Your task to perform on an android device: change notification settings in the gmail app Image 0: 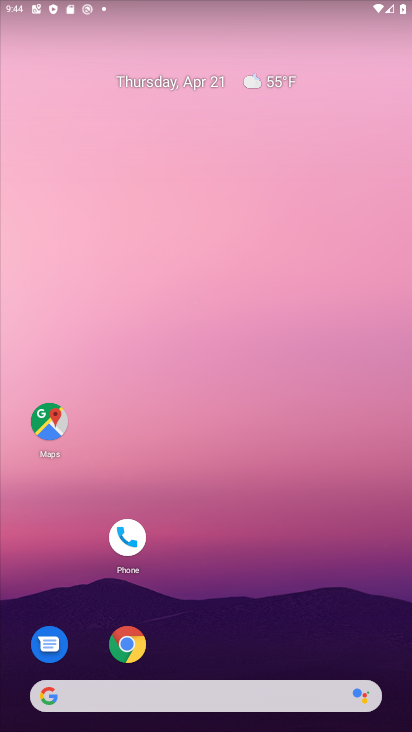
Step 0: drag from (205, 599) to (281, 163)
Your task to perform on an android device: change notification settings in the gmail app Image 1: 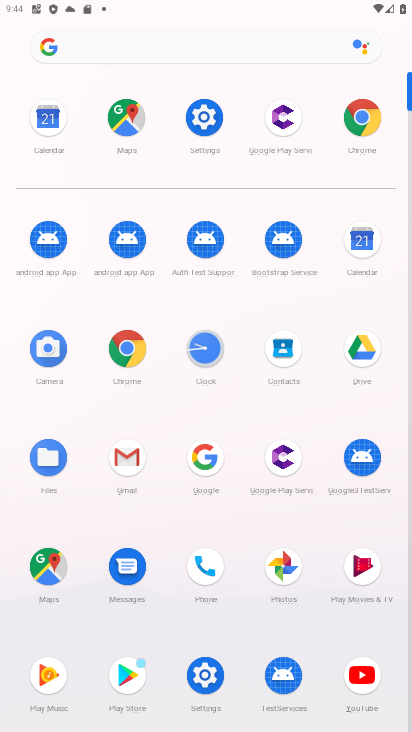
Step 1: click (130, 454)
Your task to perform on an android device: change notification settings in the gmail app Image 2: 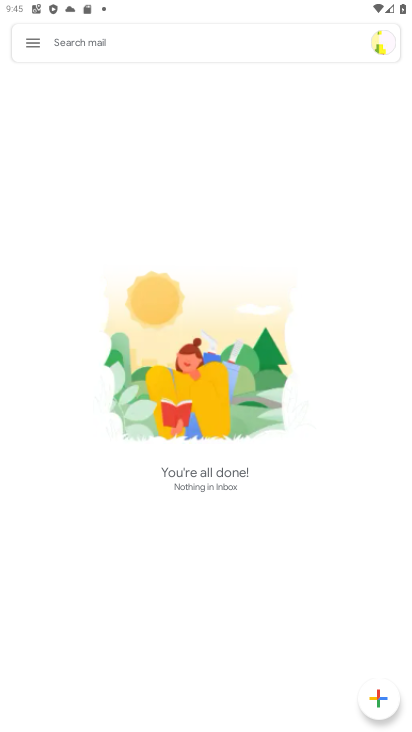
Step 2: click (33, 39)
Your task to perform on an android device: change notification settings in the gmail app Image 3: 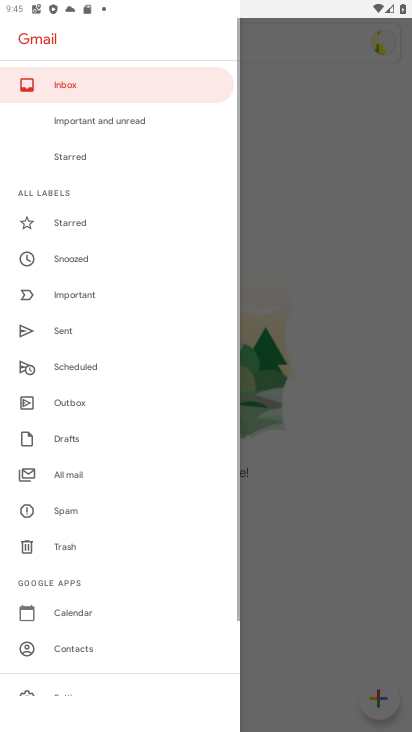
Step 3: drag from (114, 629) to (217, 188)
Your task to perform on an android device: change notification settings in the gmail app Image 4: 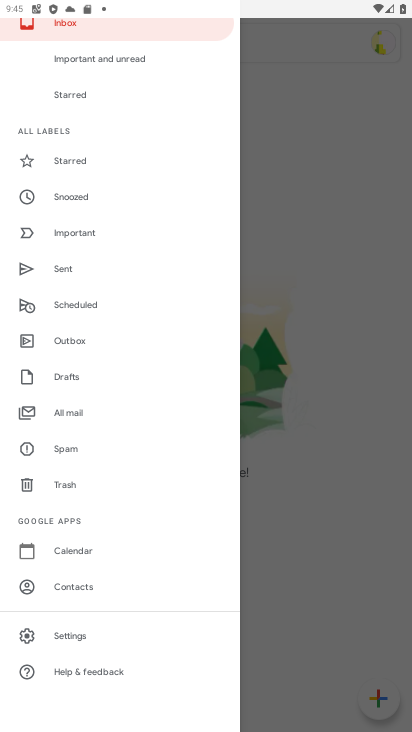
Step 4: click (53, 637)
Your task to perform on an android device: change notification settings in the gmail app Image 5: 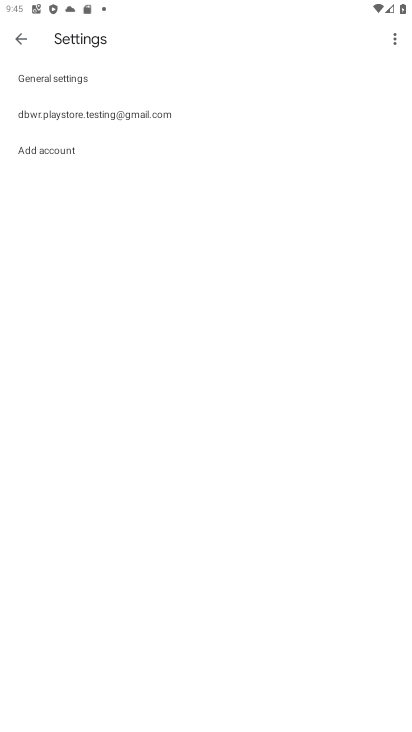
Step 5: click (121, 105)
Your task to perform on an android device: change notification settings in the gmail app Image 6: 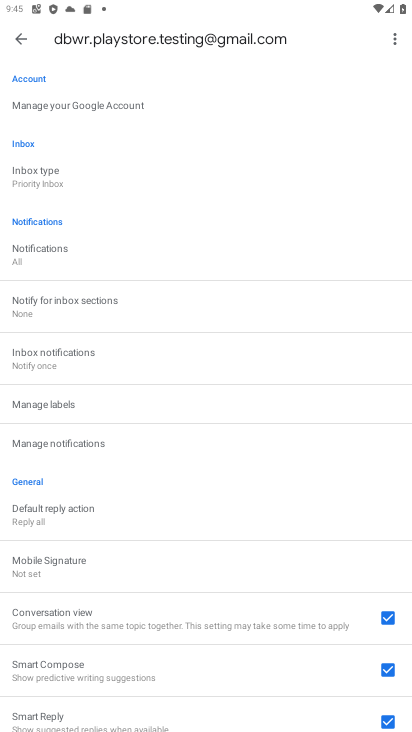
Step 6: click (91, 349)
Your task to perform on an android device: change notification settings in the gmail app Image 7: 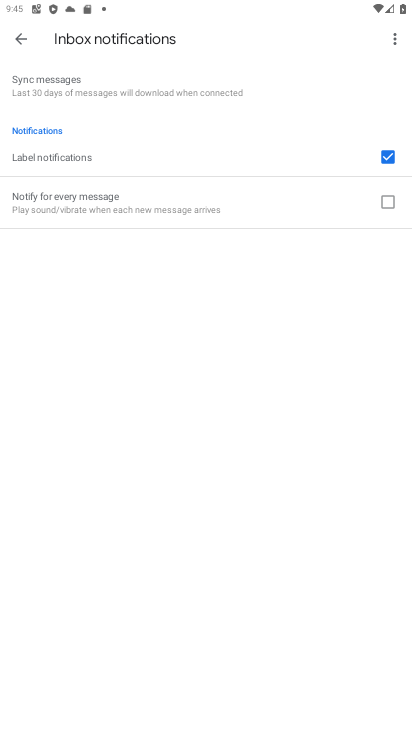
Step 7: click (16, 37)
Your task to perform on an android device: change notification settings in the gmail app Image 8: 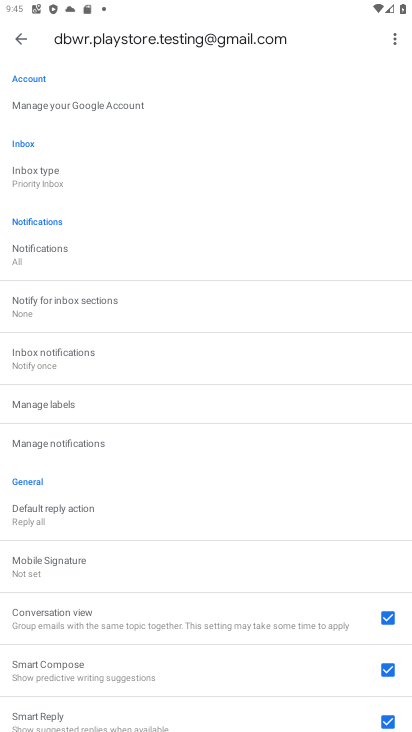
Step 8: click (73, 442)
Your task to perform on an android device: change notification settings in the gmail app Image 9: 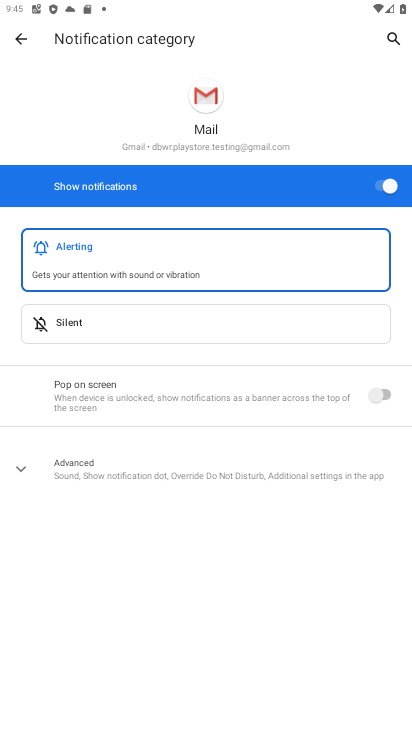
Step 9: click (375, 183)
Your task to perform on an android device: change notification settings in the gmail app Image 10: 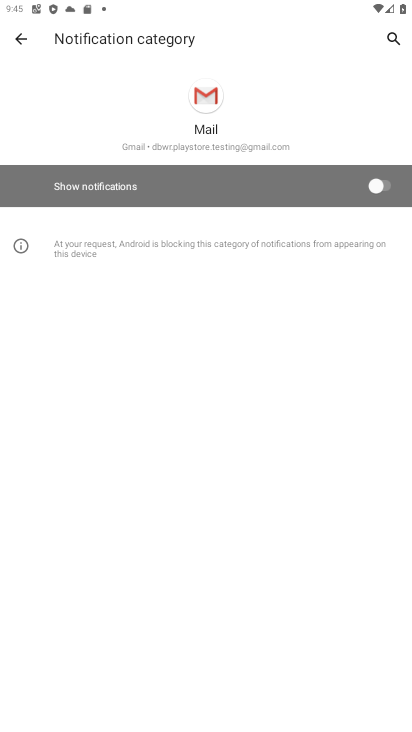
Step 10: task complete